Your task to perform on an android device: turn off airplane mode Image 0: 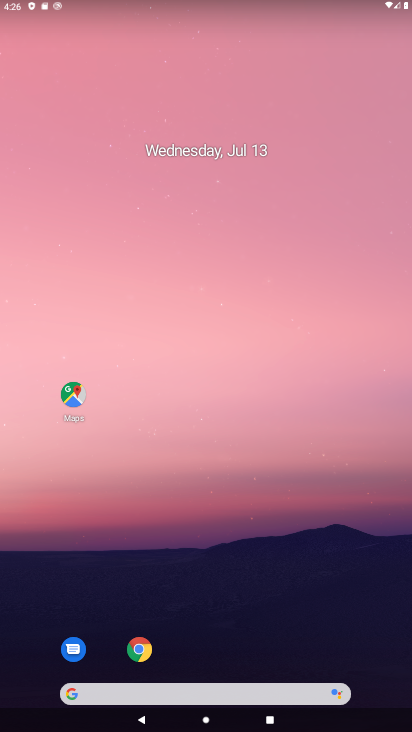
Step 0: drag from (277, 630) to (311, 7)
Your task to perform on an android device: turn off airplane mode Image 1: 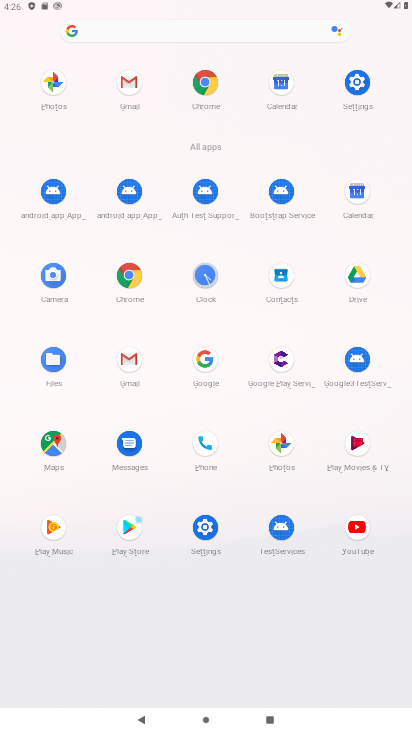
Step 1: click (367, 93)
Your task to perform on an android device: turn off airplane mode Image 2: 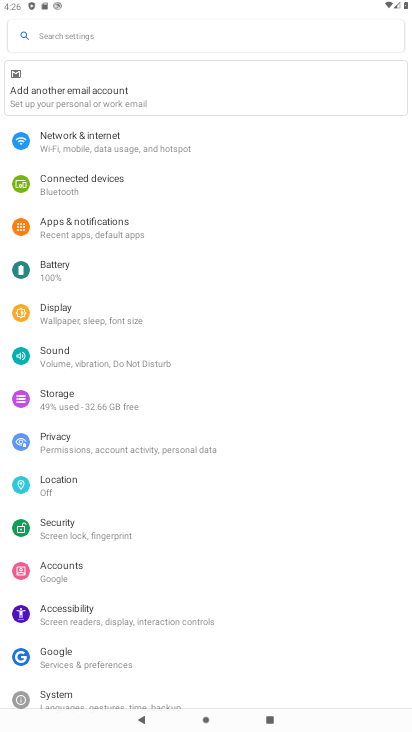
Step 2: click (152, 146)
Your task to perform on an android device: turn off airplane mode Image 3: 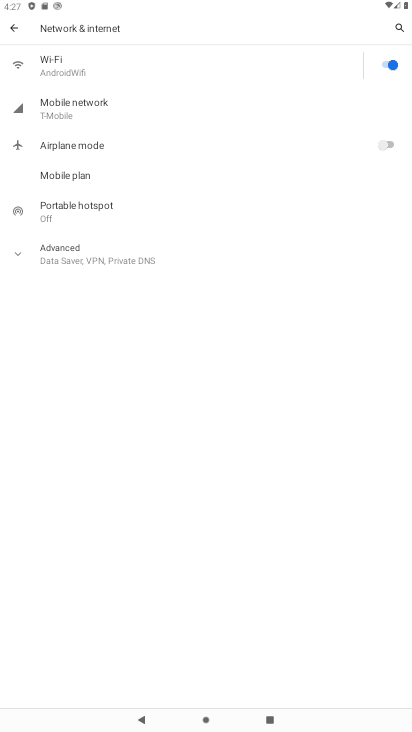
Step 3: task complete